Your task to perform on an android device: Open Reddit.com Image 0: 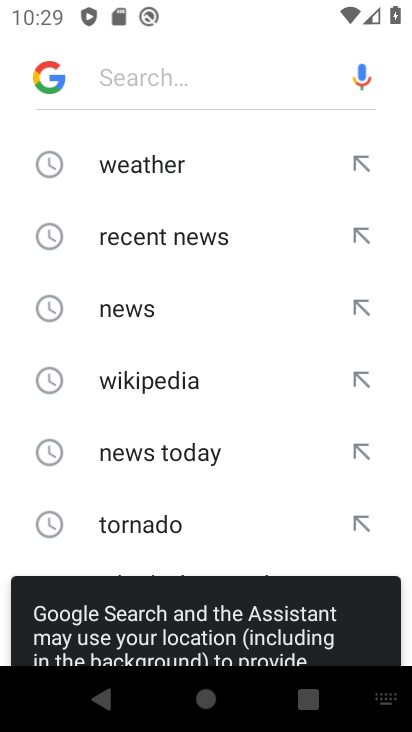
Step 0: press back button
Your task to perform on an android device: Open Reddit.com Image 1: 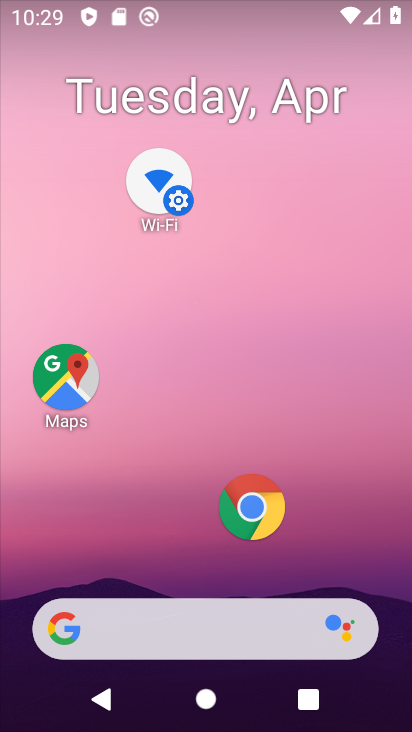
Step 1: drag from (40, 695) to (321, 245)
Your task to perform on an android device: Open Reddit.com Image 2: 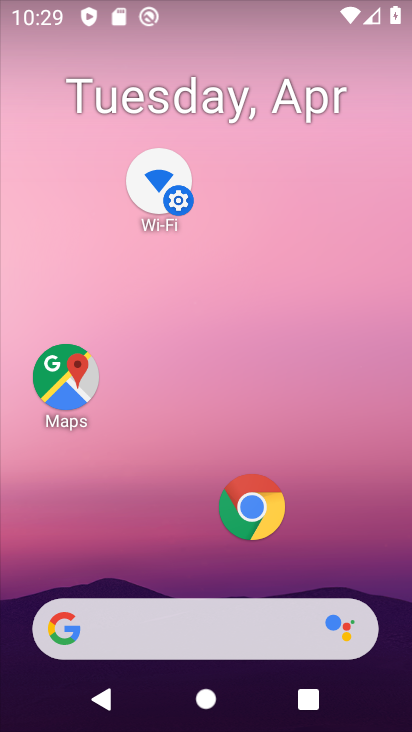
Step 2: click (259, 497)
Your task to perform on an android device: Open Reddit.com Image 3: 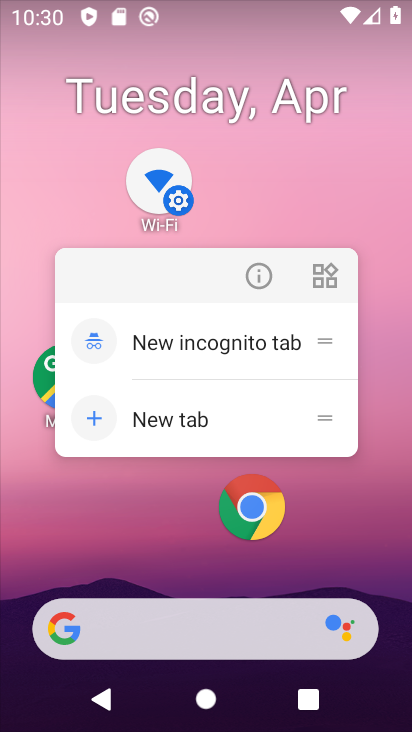
Step 3: click (266, 504)
Your task to perform on an android device: Open Reddit.com Image 4: 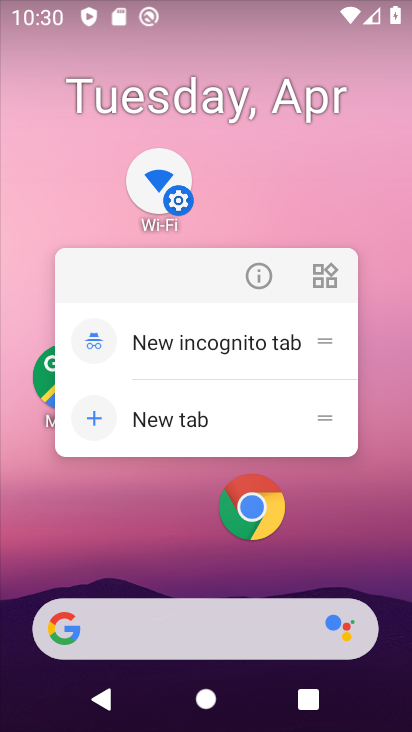
Step 4: click (253, 504)
Your task to perform on an android device: Open Reddit.com Image 5: 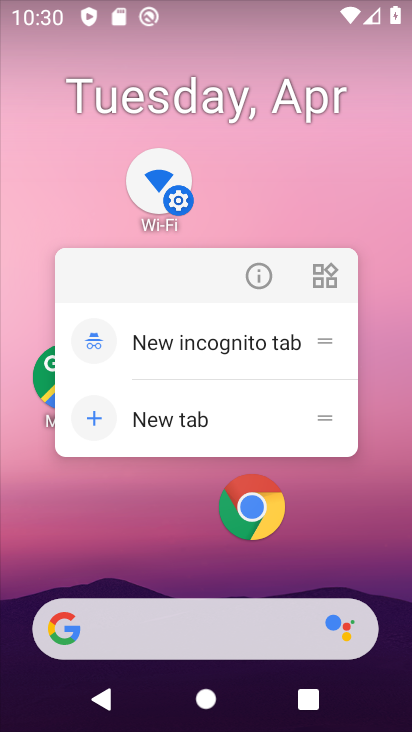
Step 5: click (253, 504)
Your task to perform on an android device: Open Reddit.com Image 6: 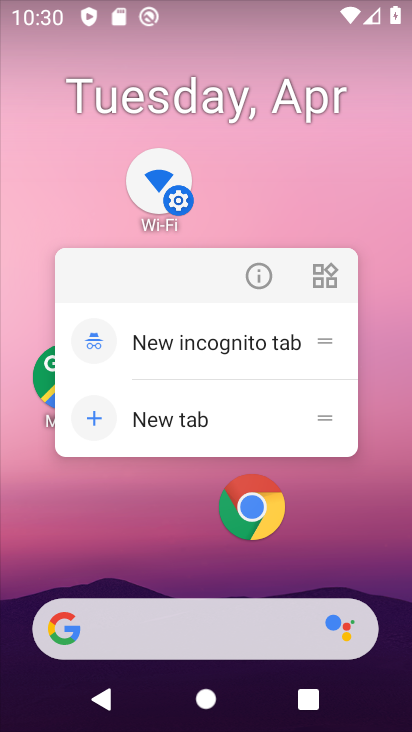
Step 6: click (253, 504)
Your task to perform on an android device: Open Reddit.com Image 7: 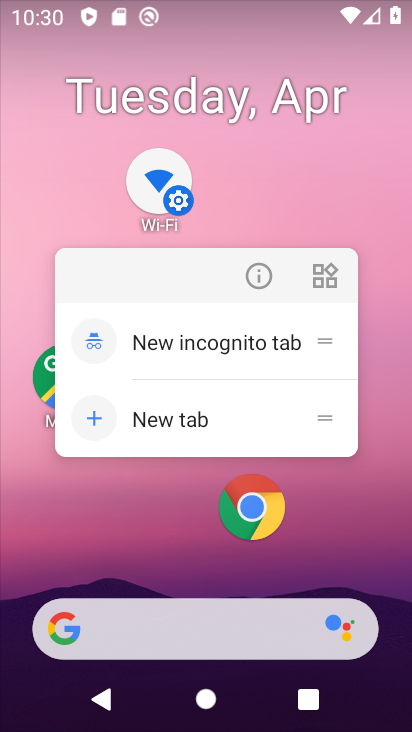
Step 7: click (253, 504)
Your task to perform on an android device: Open Reddit.com Image 8: 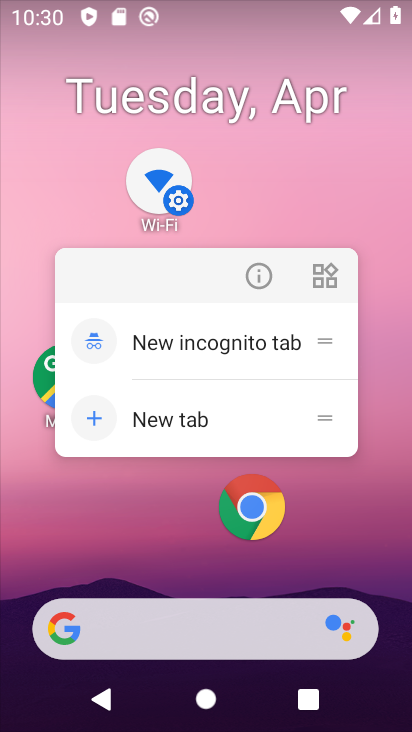
Step 8: click (253, 504)
Your task to perform on an android device: Open Reddit.com Image 9: 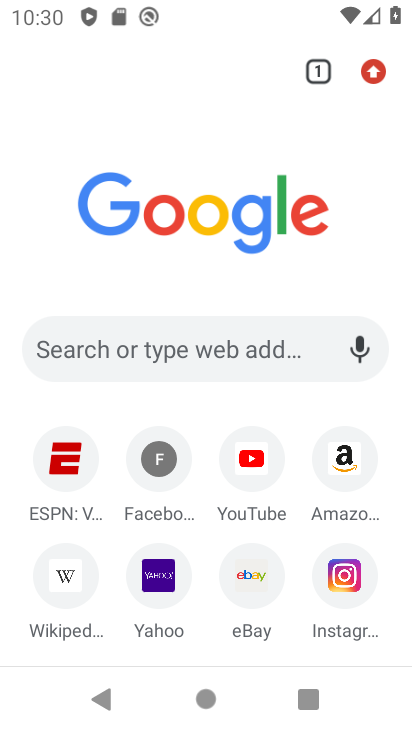
Step 9: drag from (56, 657) to (240, 318)
Your task to perform on an android device: Open Reddit.com Image 10: 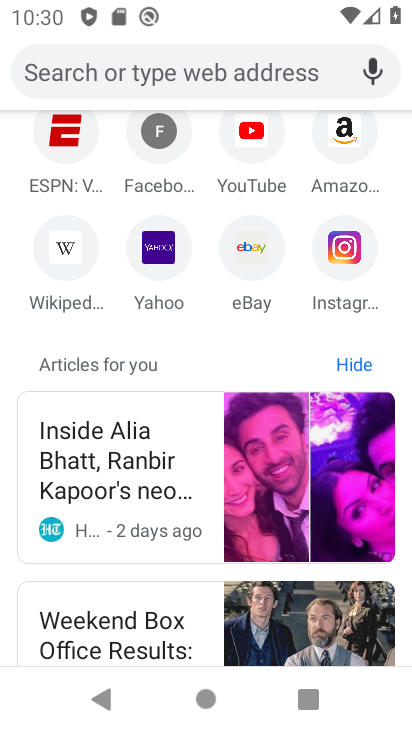
Step 10: drag from (210, 246) to (216, 463)
Your task to perform on an android device: Open Reddit.com Image 11: 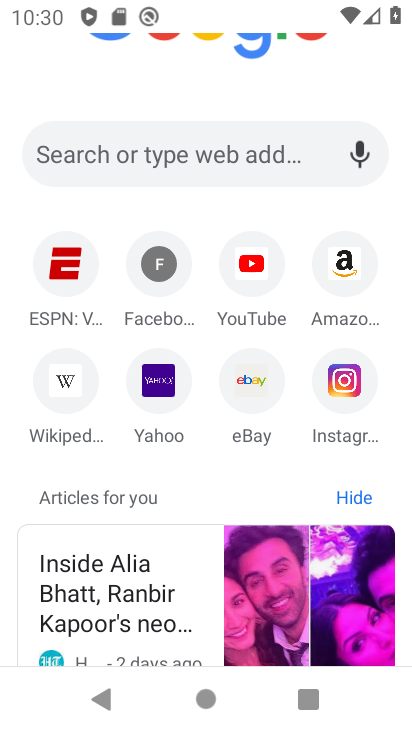
Step 11: drag from (392, 666) to (402, 531)
Your task to perform on an android device: Open Reddit.com Image 12: 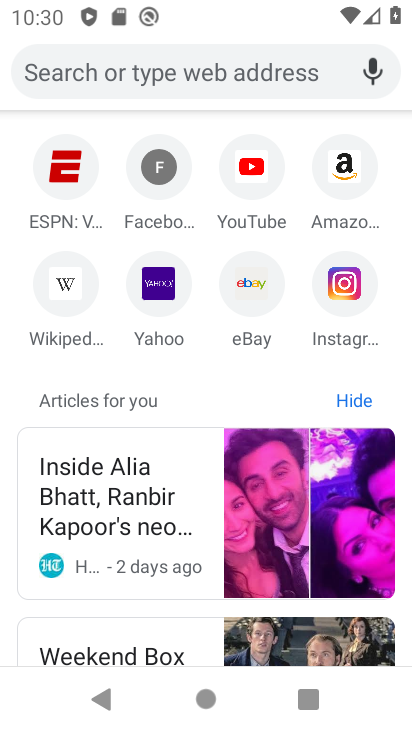
Step 12: click (233, 148)
Your task to perform on an android device: Open Reddit.com Image 13: 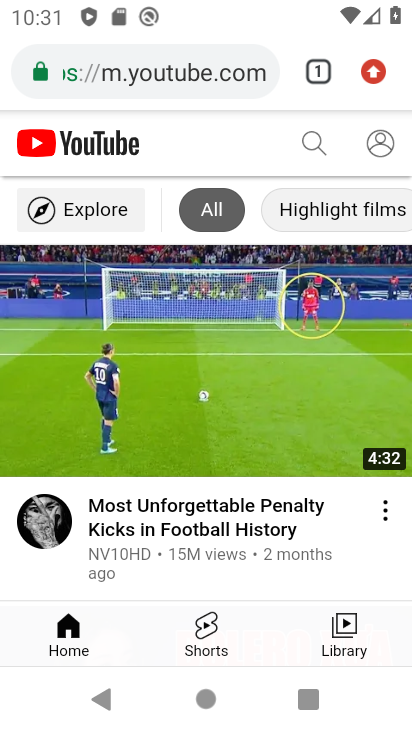
Step 13: type "Open Reddit.com"
Your task to perform on an android device: Open Reddit.com Image 14: 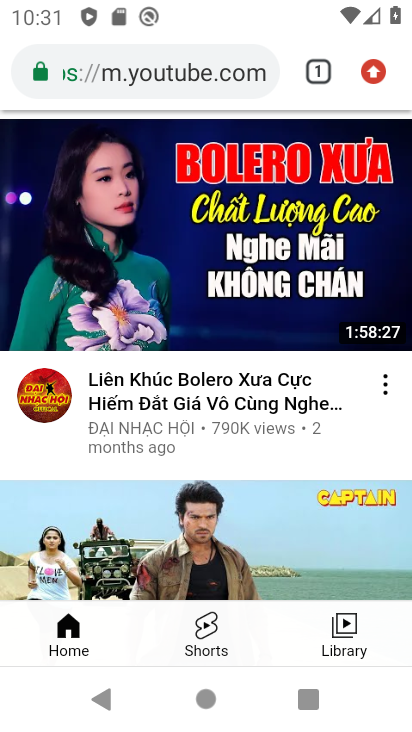
Step 14: task complete